Your task to perform on an android device: Go to notification settings Image 0: 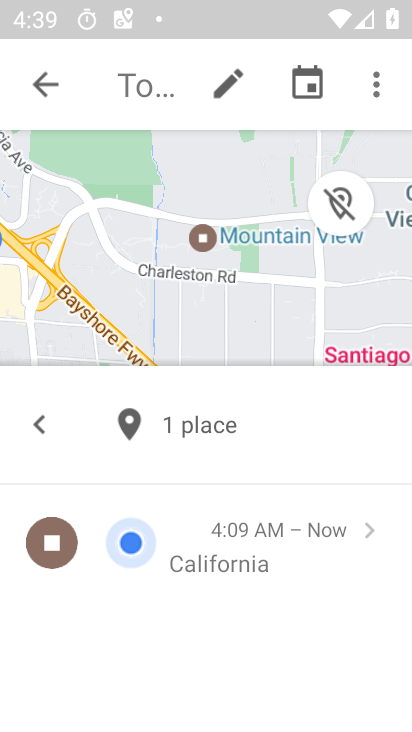
Step 0: press home button
Your task to perform on an android device: Go to notification settings Image 1: 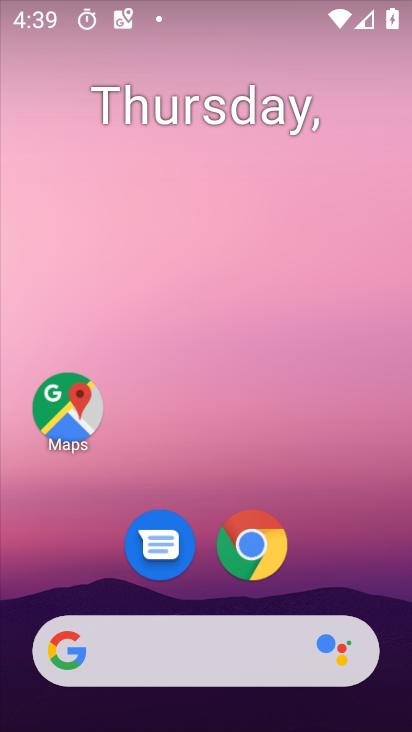
Step 1: drag from (198, 721) to (199, 75)
Your task to perform on an android device: Go to notification settings Image 2: 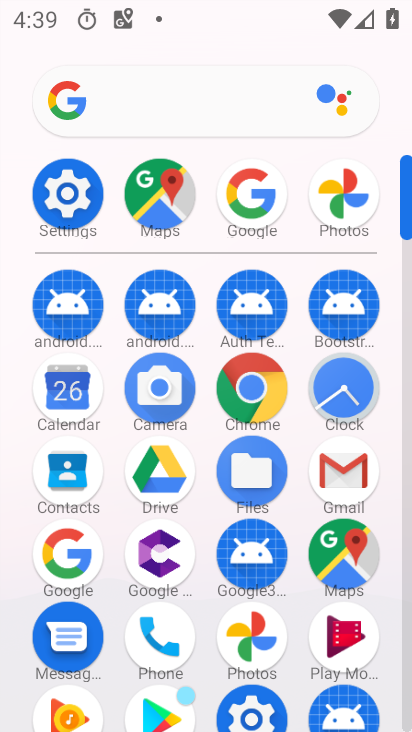
Step 2: click (63, 190)
Your task to perform on an android device: Go to notification settings Image 3: 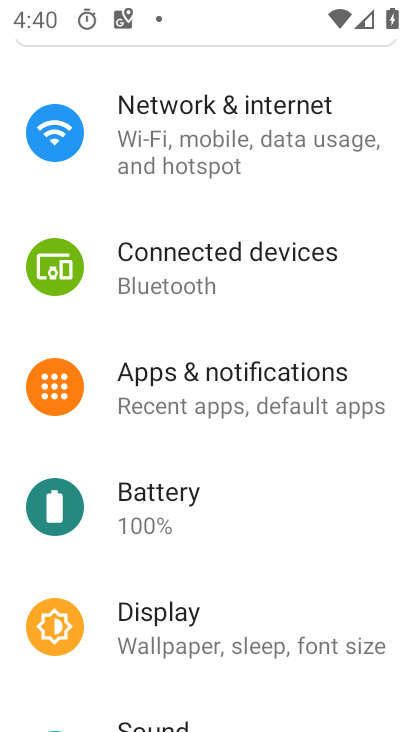
Step 3: click (227, 390)
Your task to perform on an android device: Go to notification settings Image 4: 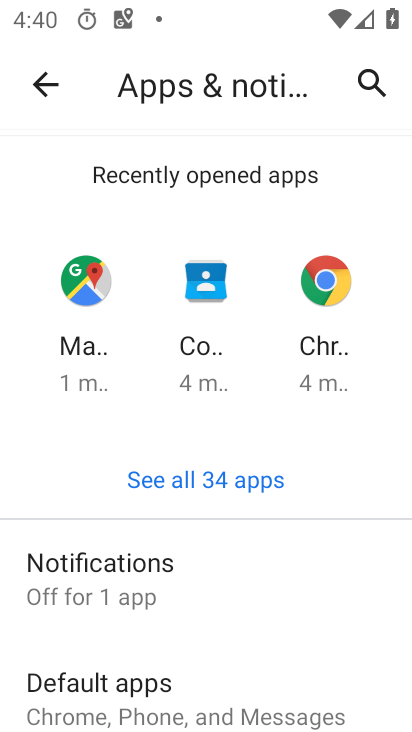
Step 4: click (103, 572)
Your task to perform on an android device: Go to notification settings Image 5: 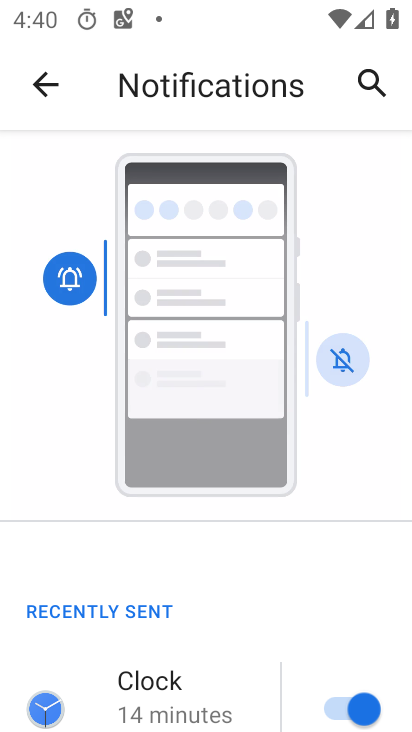
Step 5: task complete